Your task to perform on an android device: choose inbox layout in the gmail app Image 0: 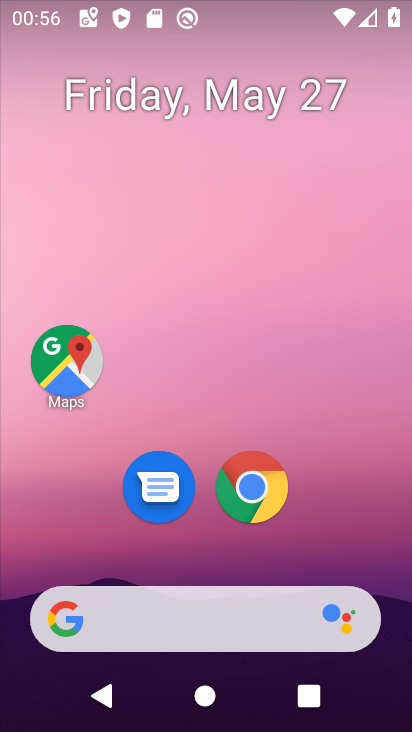
Step 0: drag from (158, 725) to (181, 94)
Your task to perform on an android device: choose inbox layout in the gmail app Image 1: 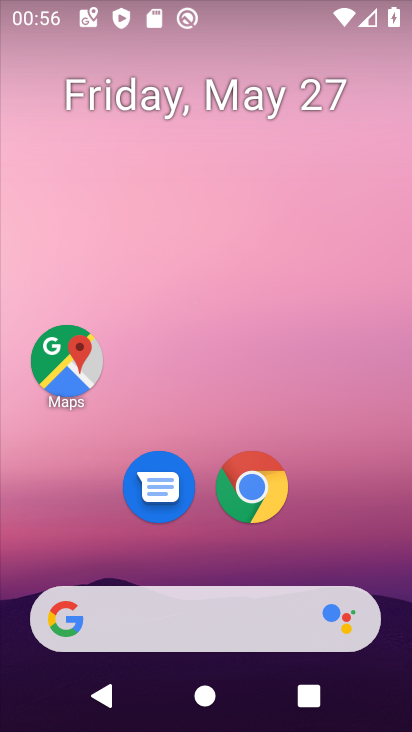
Step 1: drag from (148, 720) to (239, 43)
Your task to perform on an android device: choose inbox layout in the gmail app Image 2: 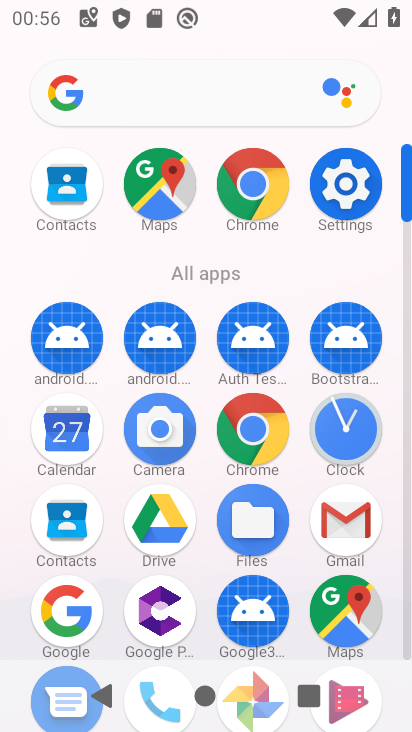
Step 2: click (341, 527)
Your task to perform on an android device: choose inbox layout in the gmail app Image 3: 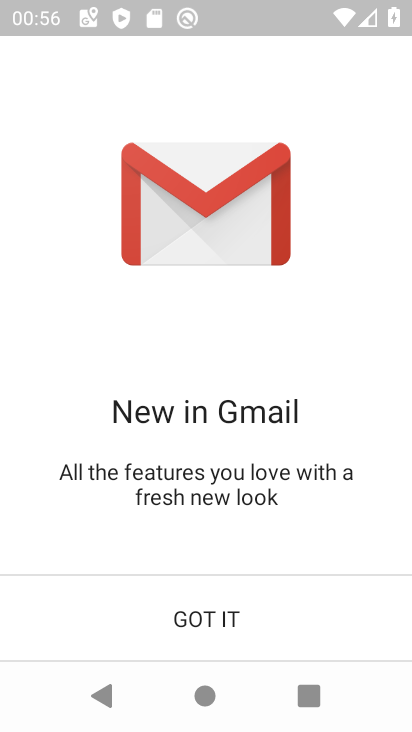
Step 3: click (186, 614)
Your task to perform on an android device: choose inbox layout in the gmail app Image 4: 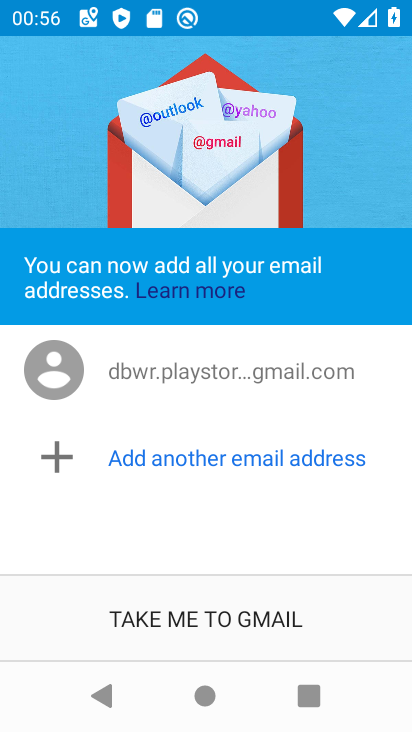
Step 4: click (228, 590)
Your task to perform on an android device: choose inbox layout in the gmail app Image 5: 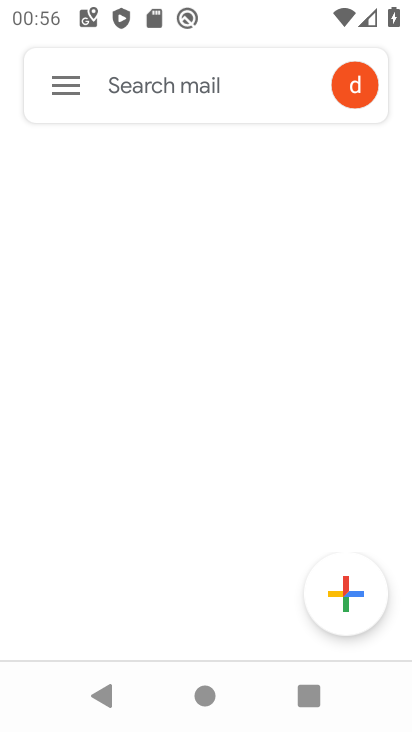
Step 5: click (62, 91)
Your task to perform on an android device: choose inbox layout in the gmail app Image 6: 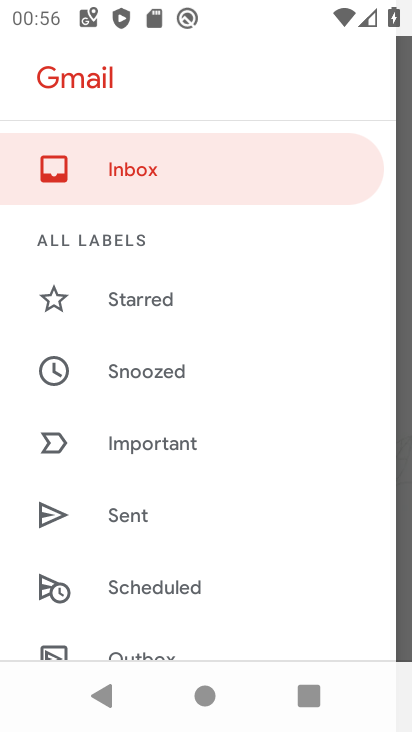
Step 6: drag from (193, 626) to (186, 214)
Your task to perform on an android device: choose inbox layout in the gmail app Image 7: 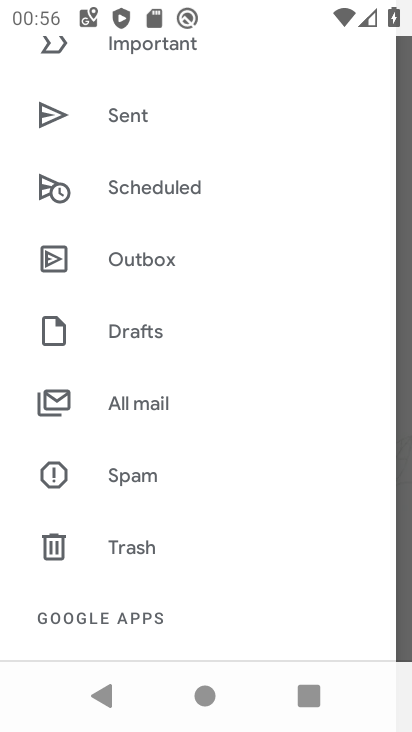
Step 7: drag from (227, 591) to (217, 342)
Your task to perform on an android device: choose inbox layout in the gmail app Image 8: 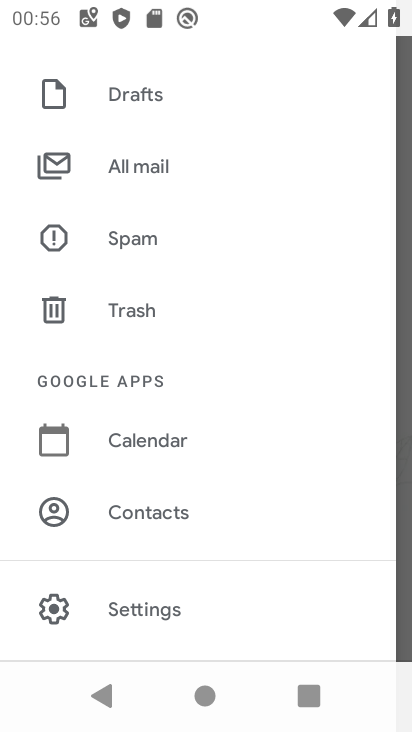
Step 8: click (152, 612)
Your task to perform on an android device: choose inbox layout in the gmail app Image 9: 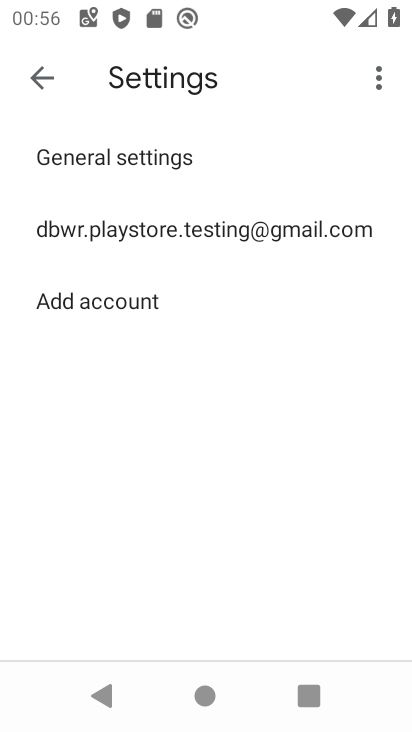
Step 9: click (287, 234)
Your task to perform on an android device: choose inbox layout in the gmail app Image 10: 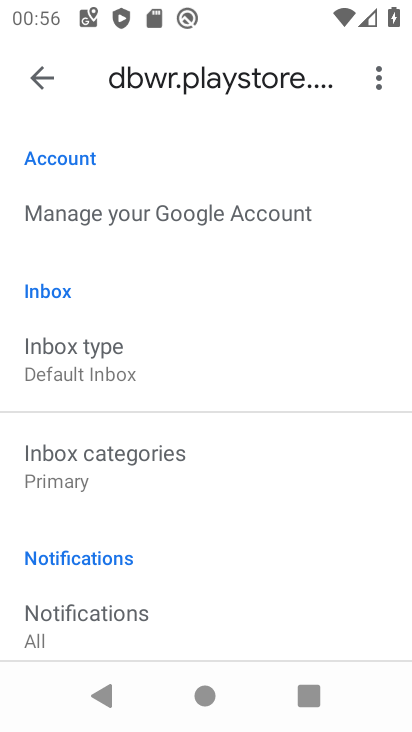
Step 10: click (106, 376)
Your task to perform on an android device: choose inbox layout in the gmail app Image 11: 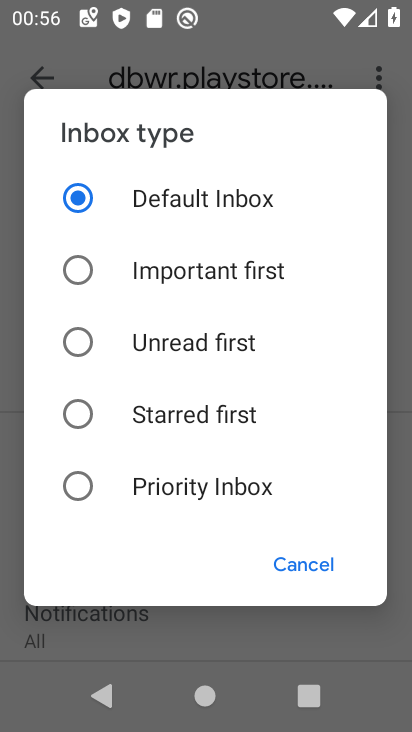
Step 11: task complete